Your task to perform on an android device: add a label to a message in the gmail app Image 0: 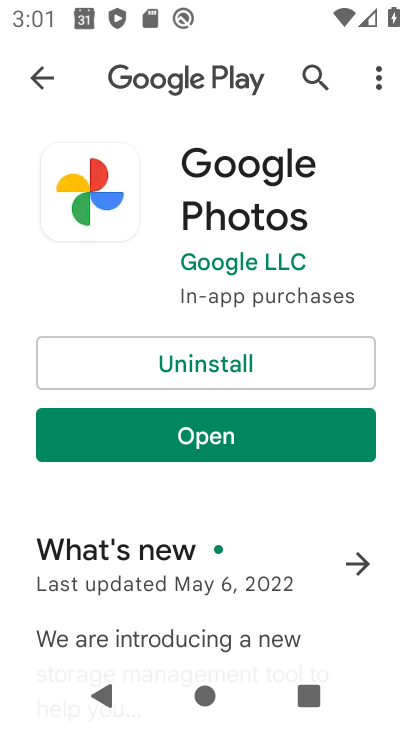
Step 0: press home button
Your task to perform on an android device: add a label to a message in the gmail app Image 1: 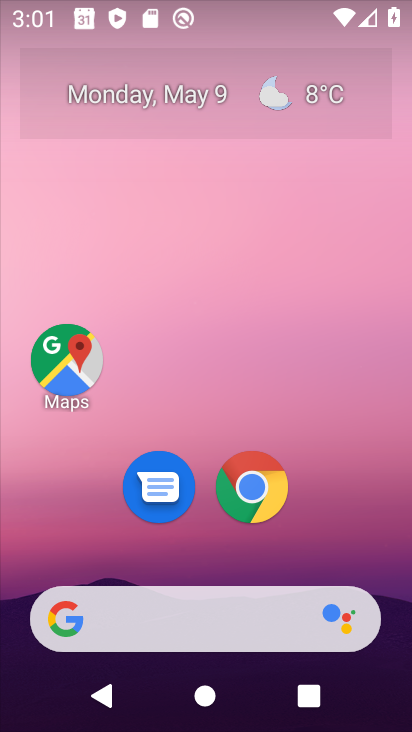
Step 1: drag from (203, 558) to (207, 97)
Your task to perform on an android device: add a label to a message in the gmail app Image 2: 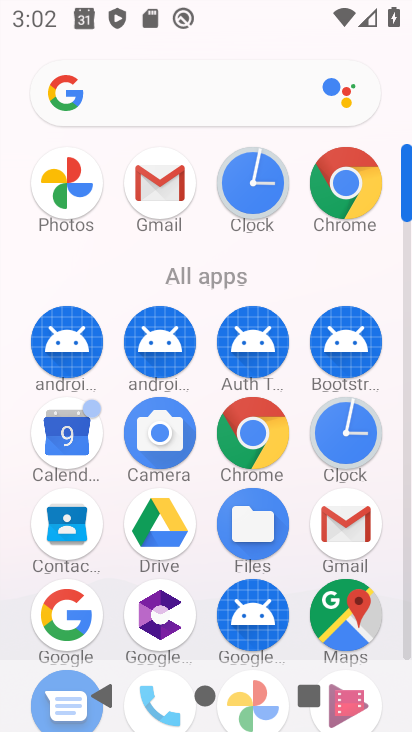
Step 2: click (157, 175)
Your task to perform on an android device: add a label to a message in the gmail app Image 3: 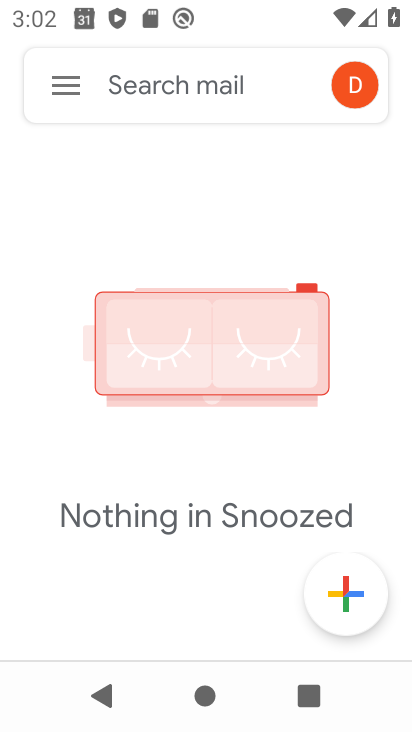
Step 3: click (57, 88)
Your task to perform on an android device: add a label to a message in the gmail app Image 4: 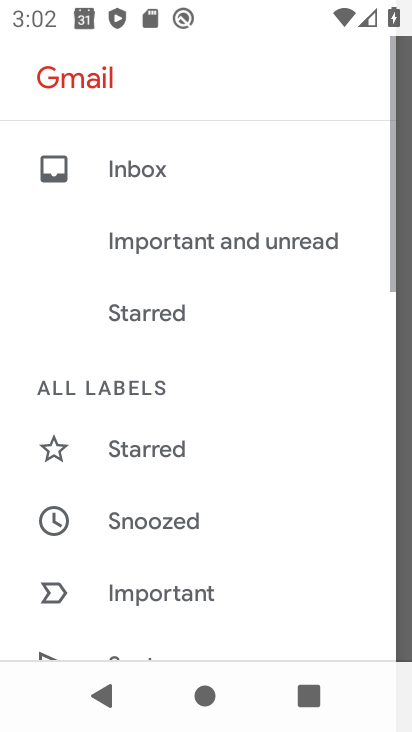
Step 4: drag from (130, 555) to (142, 611)
Your task to perform on an android device: add a label to a message in the gmail app Image 5: 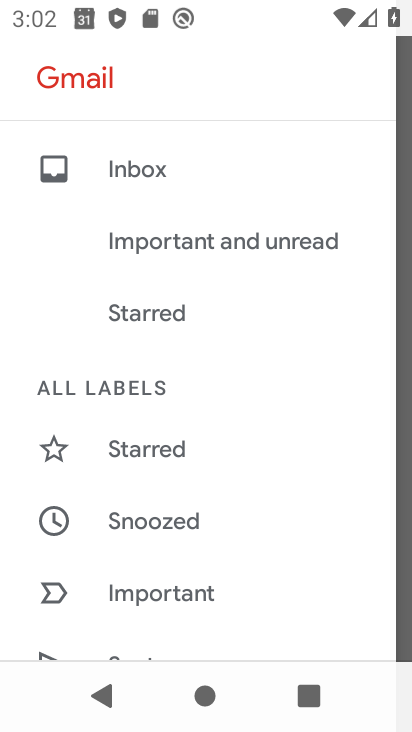
Step 5: click (137, 171)
Your task to perform on an android device: add a label to a message in the gmail app Image 6: 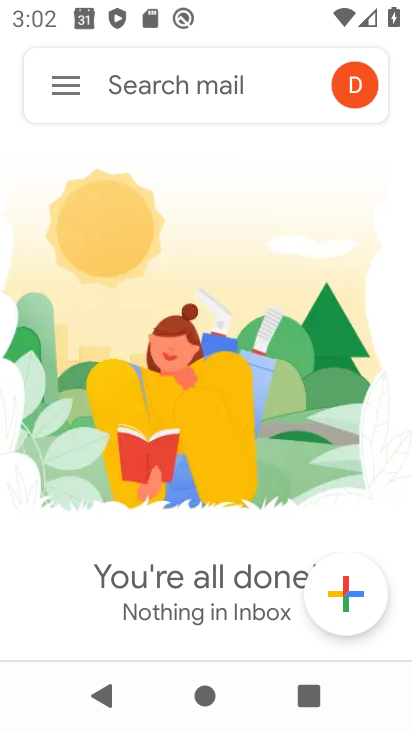
Step 6: task complete